Your task to perform on an android device: Turn on the flashlight Image 0: 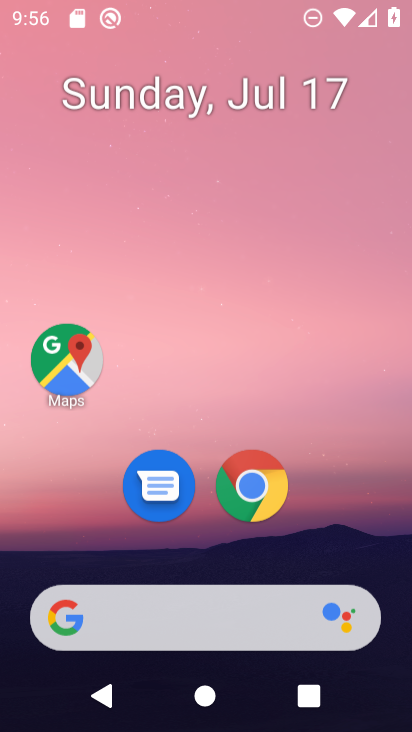
Step 0: press home button
Your task to perform on an android device: Turn on the flashlight Image 1: 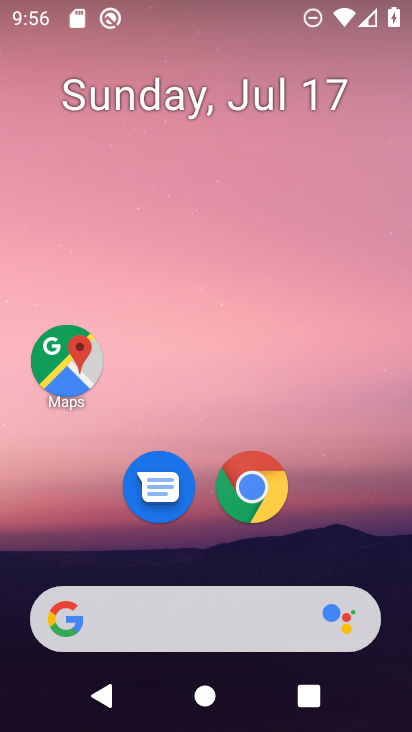
Step 1: task complete